Your task to perform on an android device: Open privacy settings Image 0: 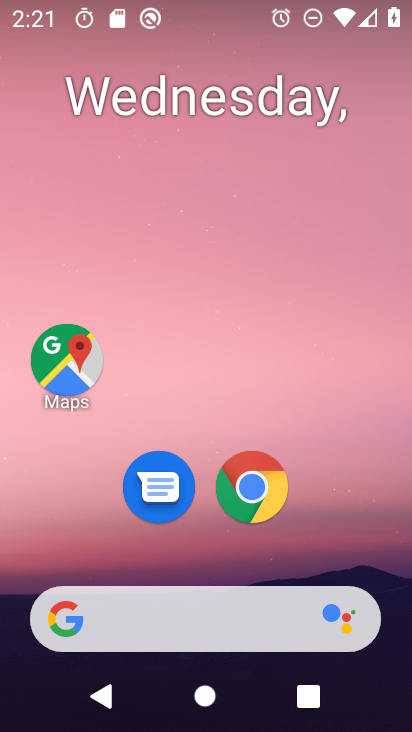
Step 0: drag from (68, 489) to (246, 55)
Your task to perform on an android device: Open privacy settings Image 1: 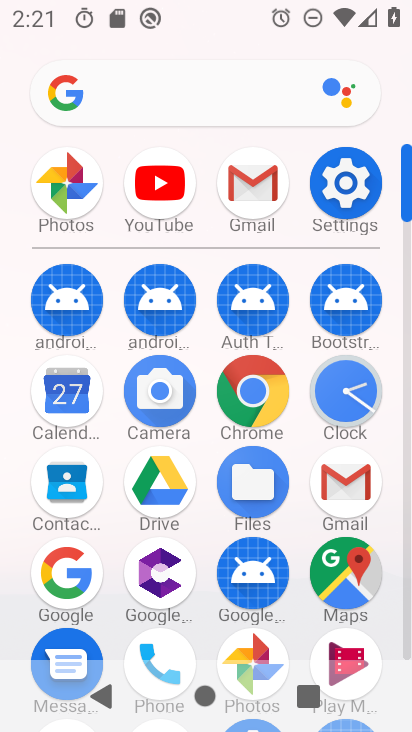
Step 1: click (354, 176)
Your task to perform on an android device: Open privacy settings Image 2: 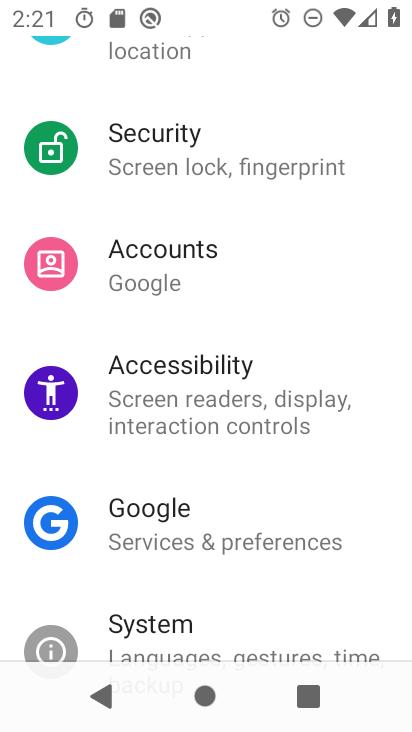
Step 2: drag from (326, 181) to (206, 658)
Your task to perform on an android device: Open privacy settings Image 3: 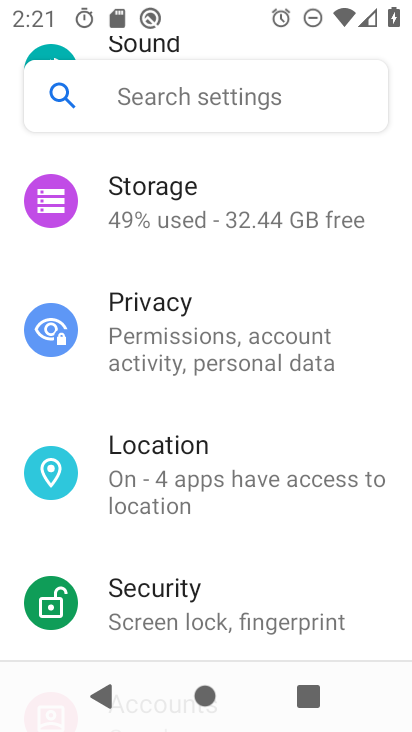
Step 3: click (168, 346)
Your task to perform on an android device: Open privacy settings Image 4: 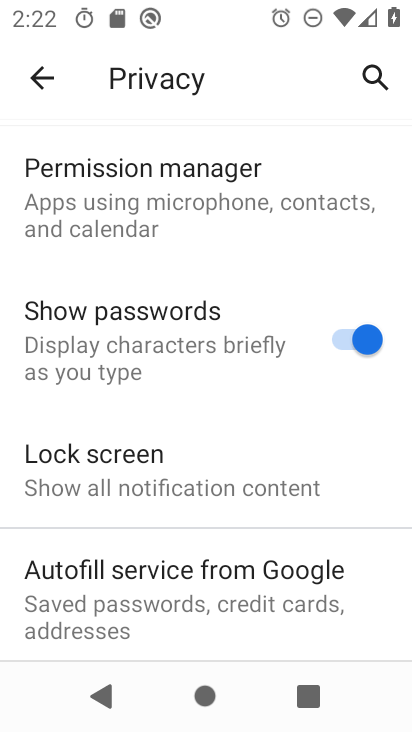
Step 4: task complete